Your task to perform on an android device: Open maps Image 0: 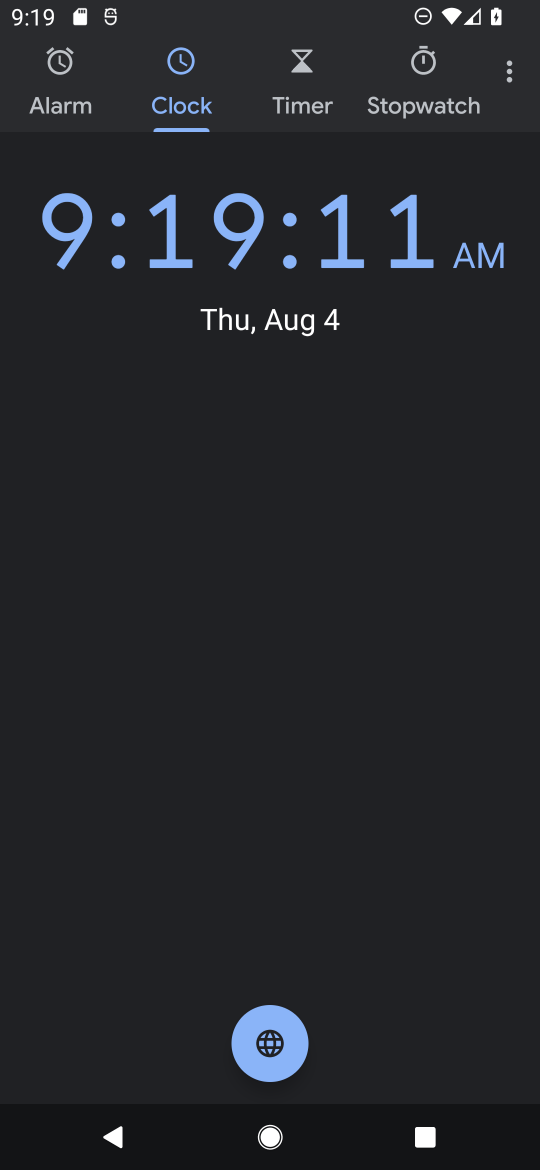
Step 0: press home button
Your task to perform on an android device: Open maps Image 1: 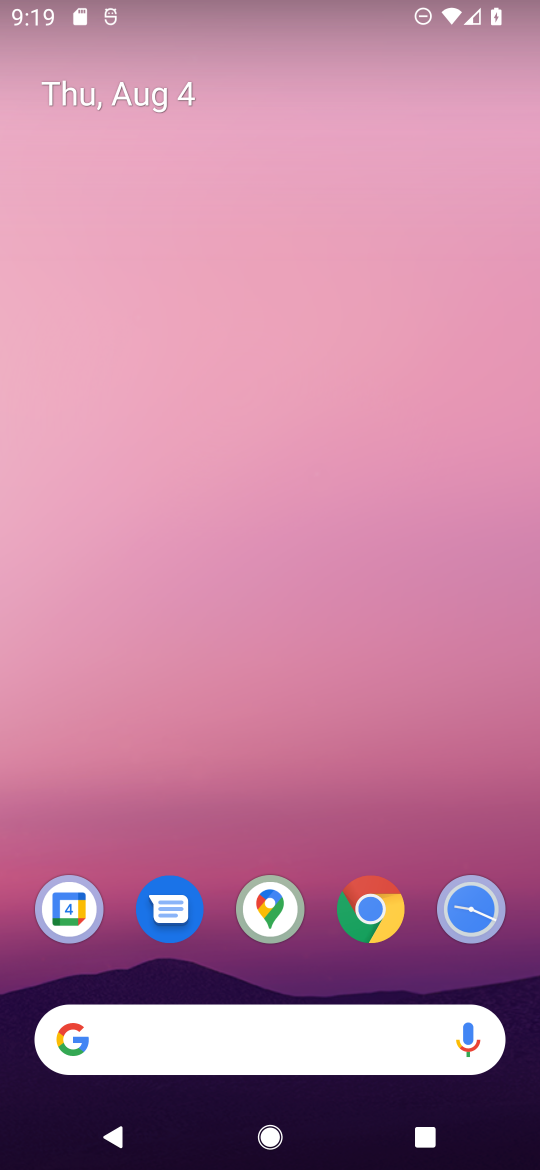
Step 1: drag from (298, 818) to (326, 174)
Your task to perform on an android device: Open maps Image 2: 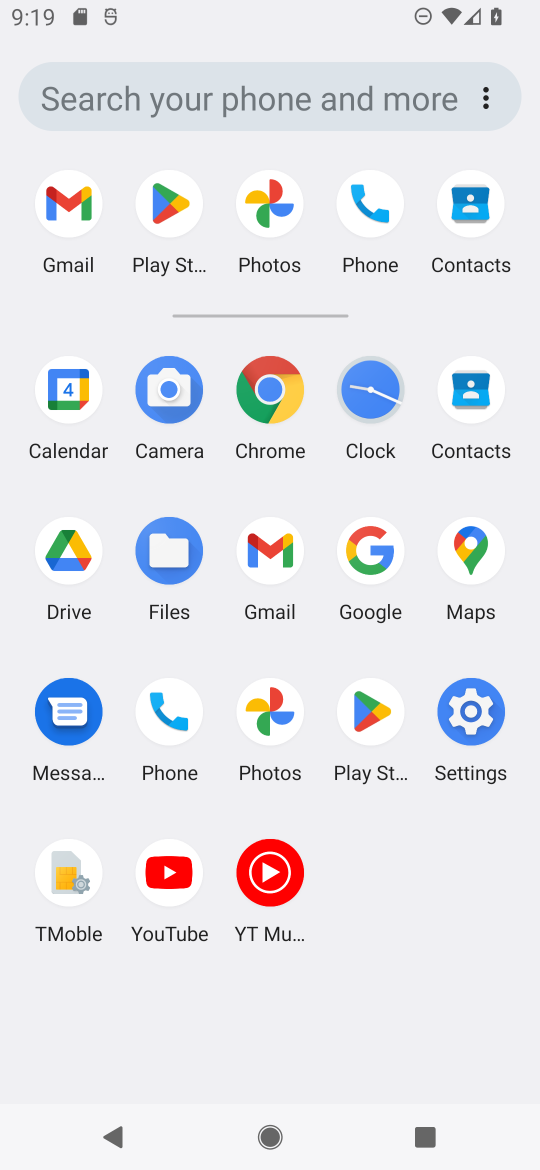
Step 2: click (468, 549)
Your task to perform on an android device: Open maps Image 3: 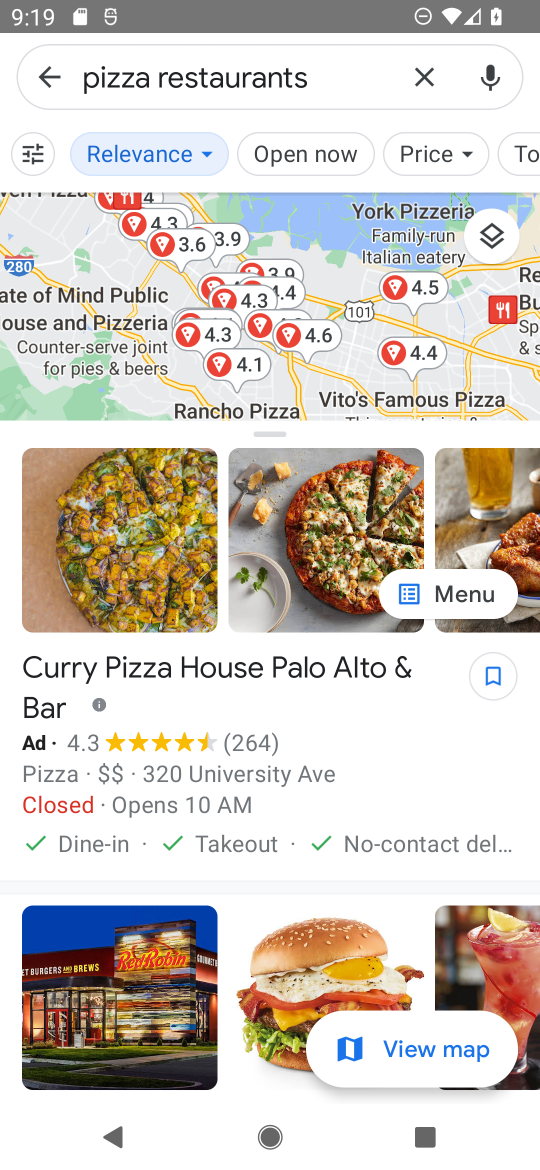
Step 3: task complete